Your task to perform on an android device: Go to Android settings Image 0: 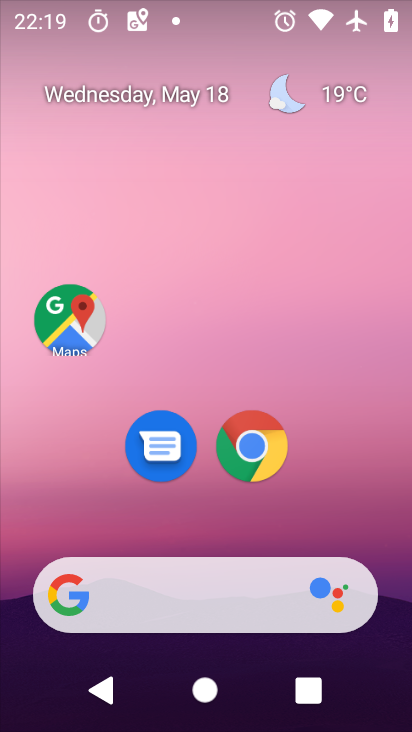
Step 0: press home button
Your task to perform on an android device: Go to Android settings Image 1: 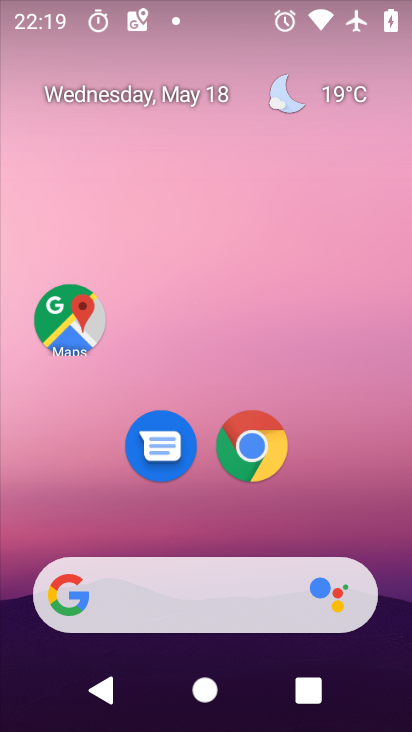
Step 1: drag from (149, 596) to (293, 128)
Your task to perform on an android device: Go to Android settings Image 2: 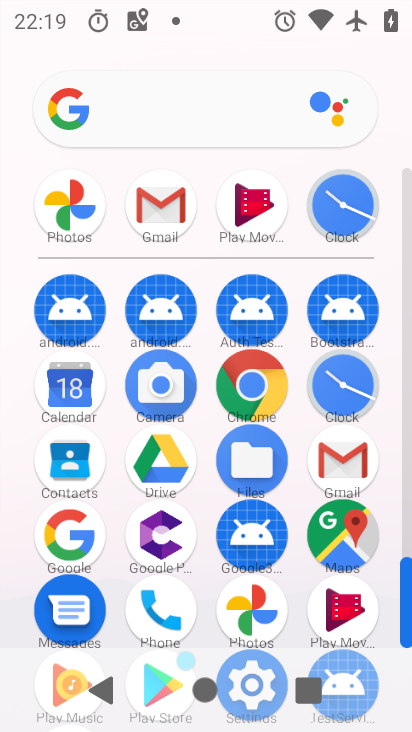
Step 2: drag from (216, 567) to (327, 214)
Your task to perform on an android device: Go to Android settings Image 3: 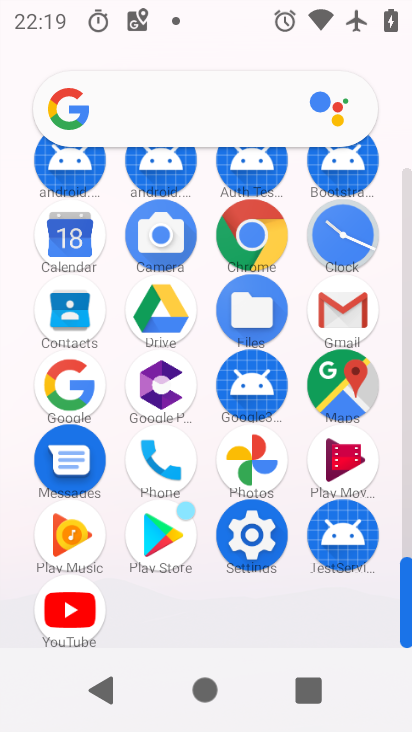
Step 3: click (261, 536)
Your task to perform on an android device: Go to Android settings Image 4: 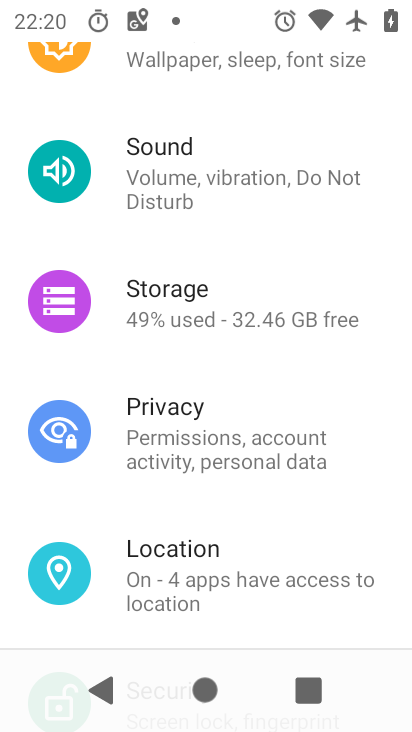
Step 4: task complete